Your task to perform on an android device: turn smart compose on in the gmail app Image 0: 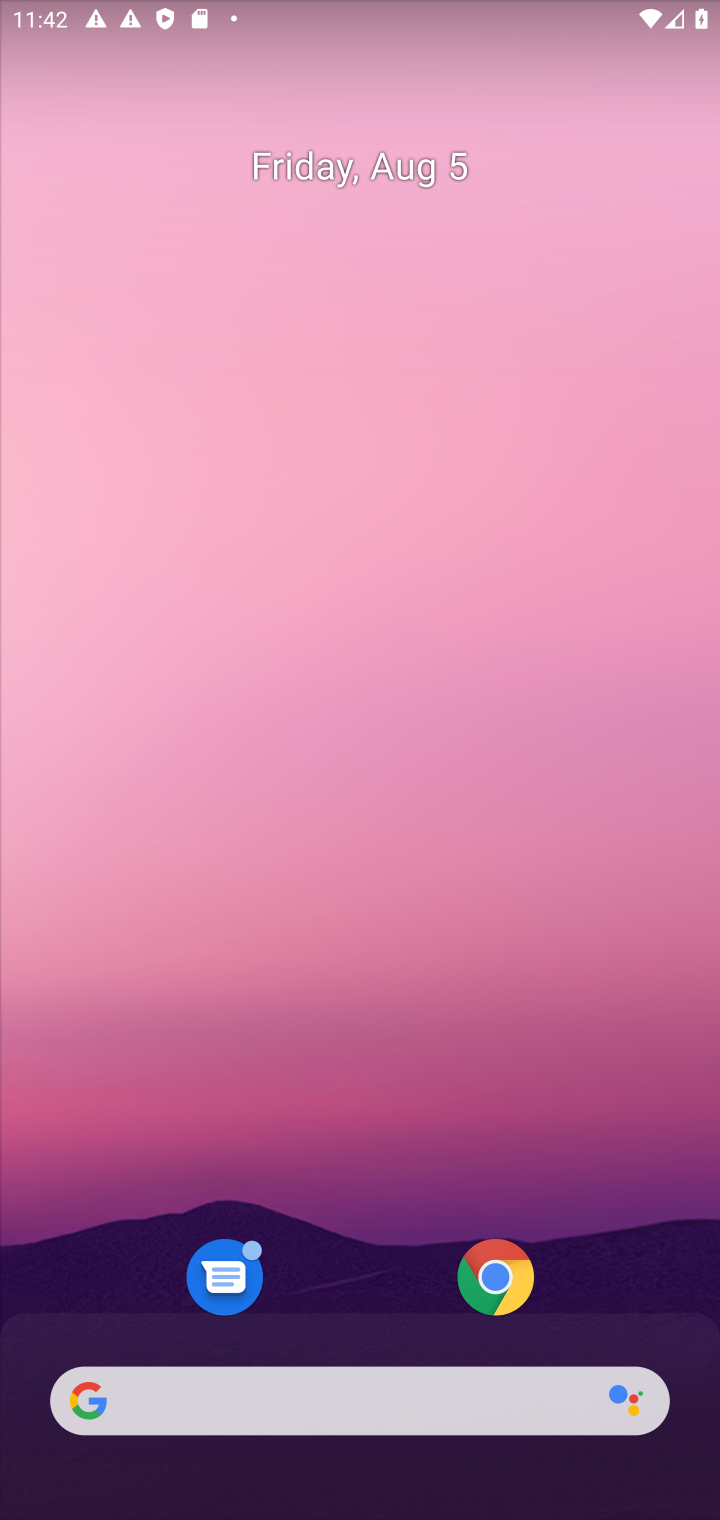
Step 0: drag from (368, 1317) to (460, 415)
Your task to perform on an android device: turn smart compose on in the gmail app Image 1: 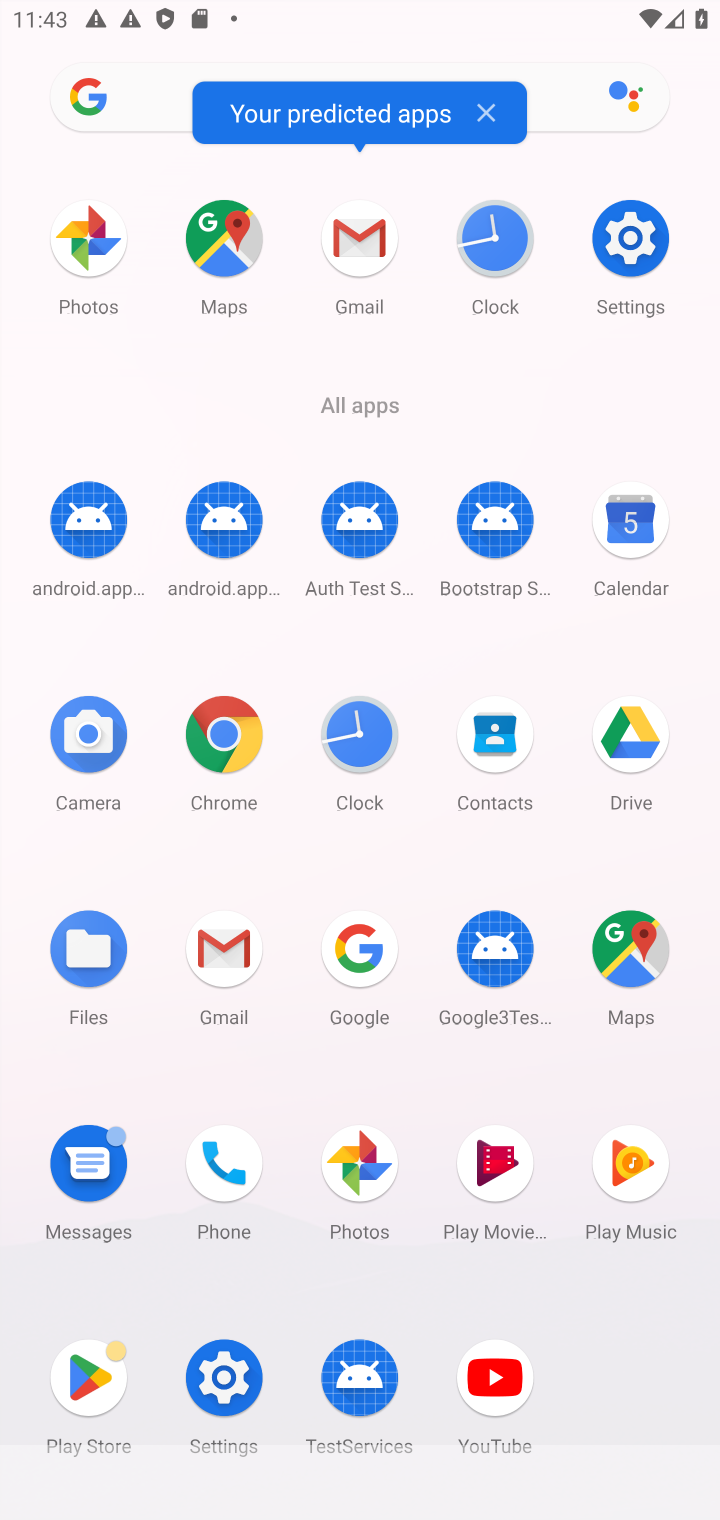
Step 1: click (353, 246)
Your task to perform on an android device: turn smart compose on in the gmail app Image 2: 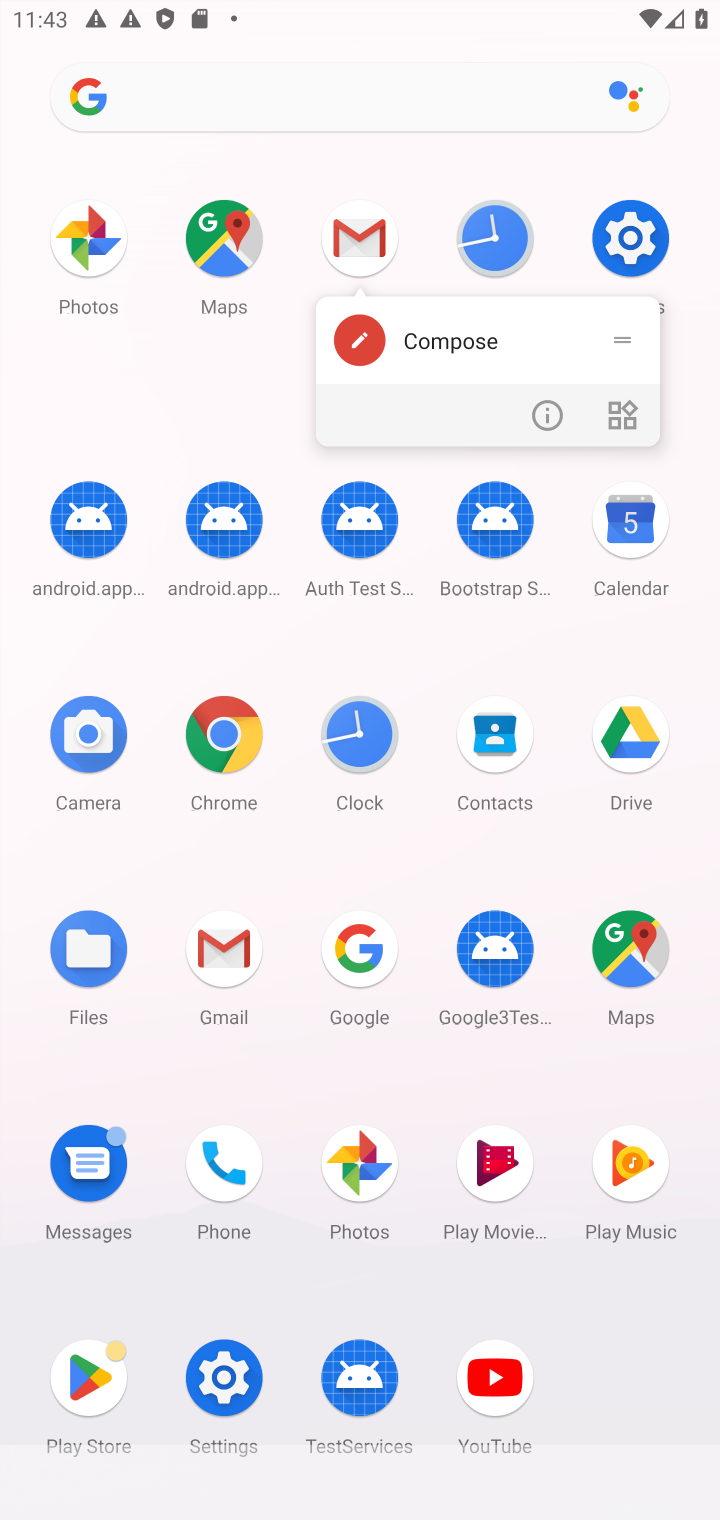
Step 2: click (366, 214)
Your task to perform on an android device: turn smart compose on in the gmail app Image 3: 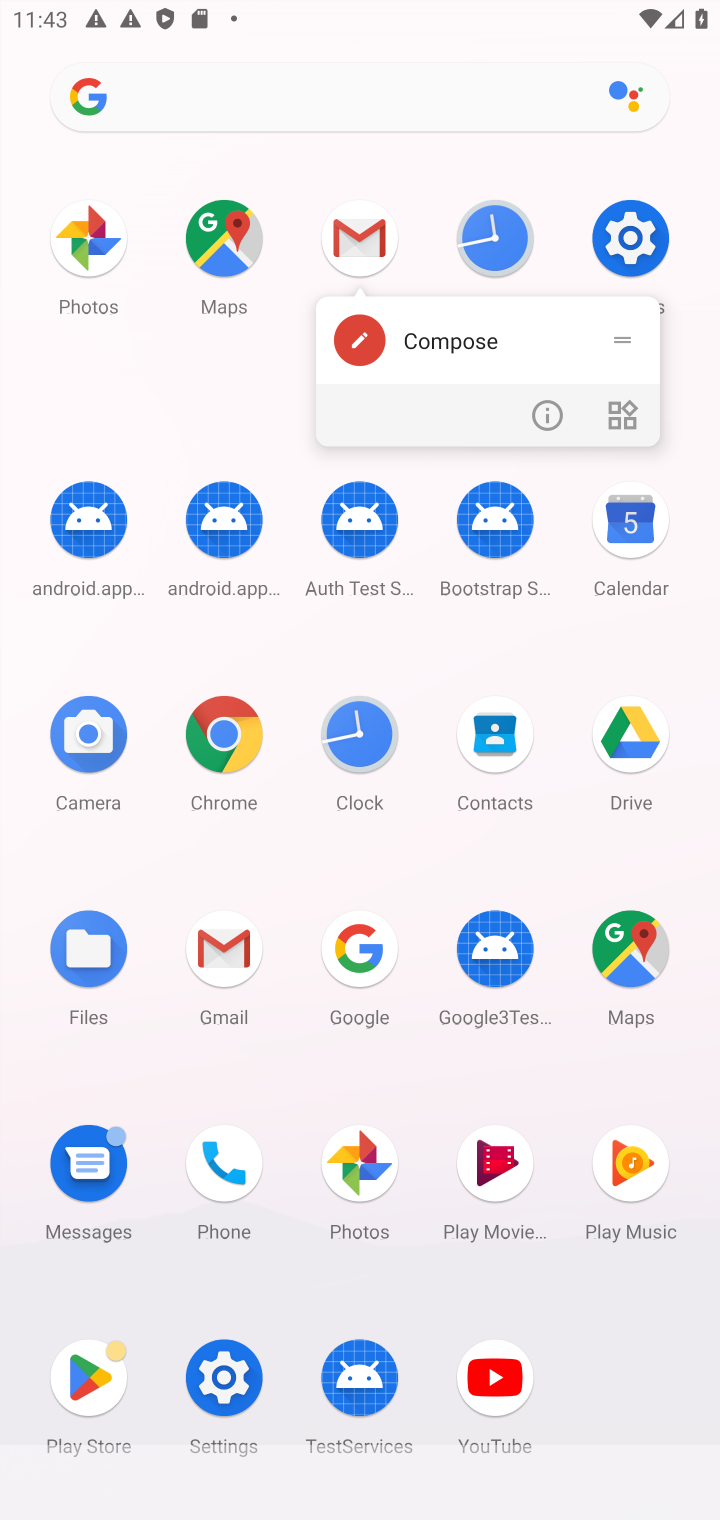
Step 3: click (368, 223)
Your task to perform on an android device: turn smart compose on in the gmail app Image 4: 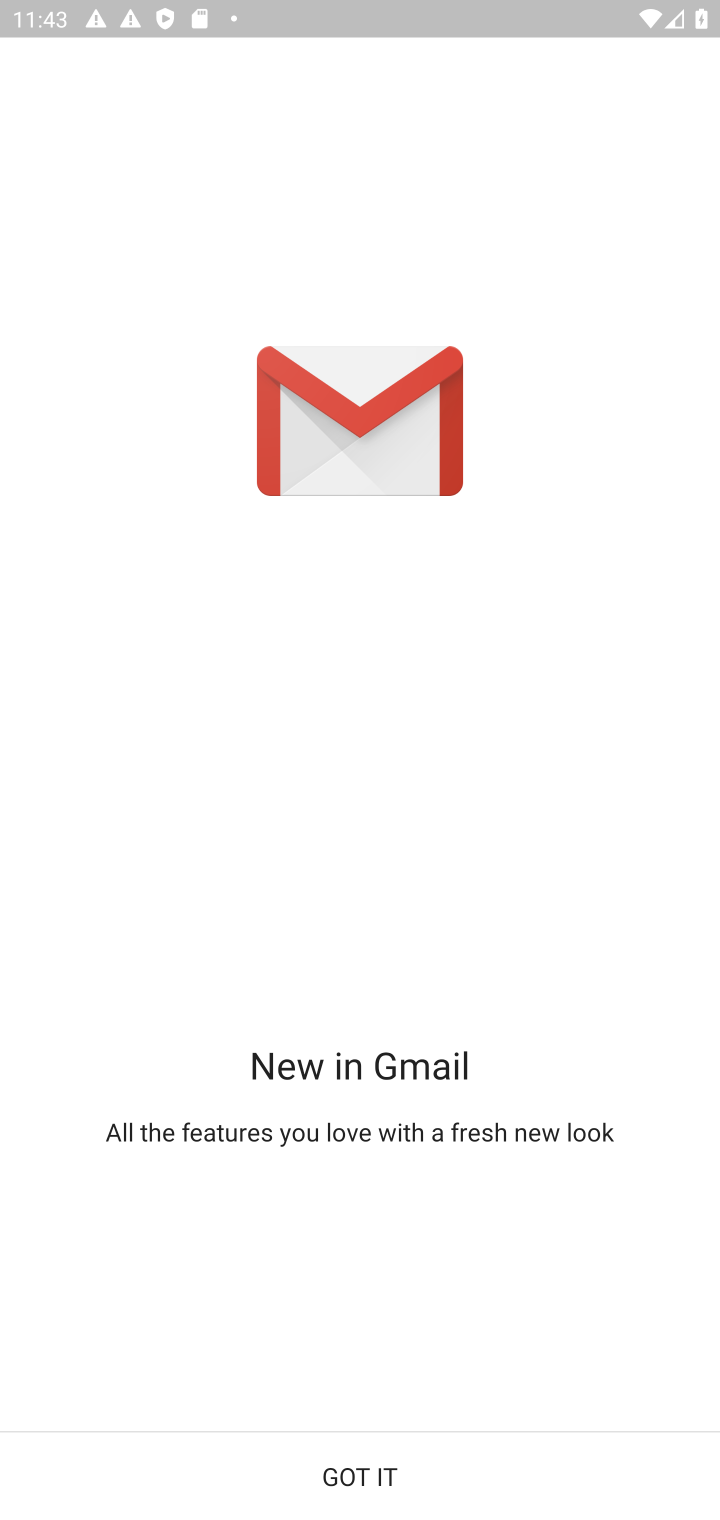
Step 4: click (361, 1472)
Your task to perform on an android device: turn smart compose on in the gmail app Image 5: 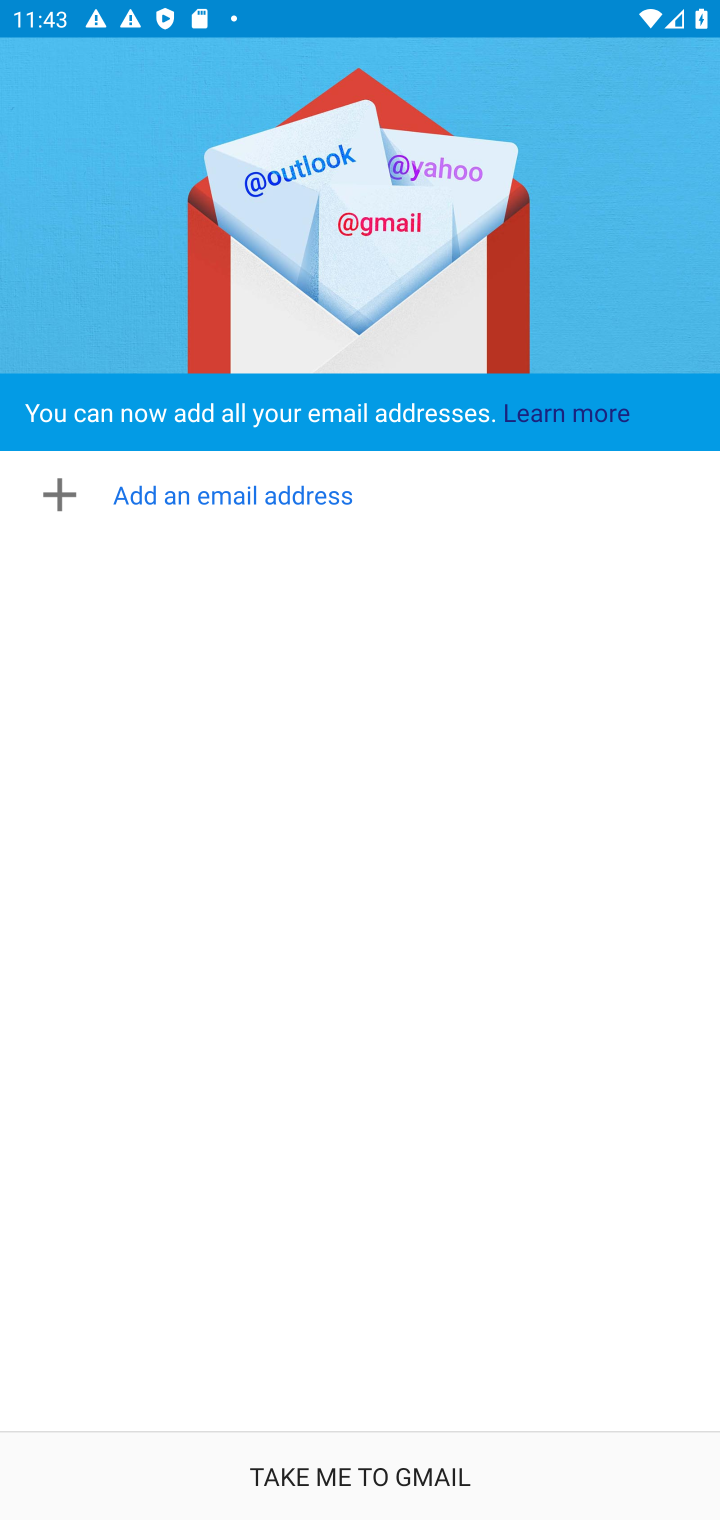
Step 5: click (363, 1472)
Your task to perform on an android device: turn smart compose on in the gmail app Image 6: 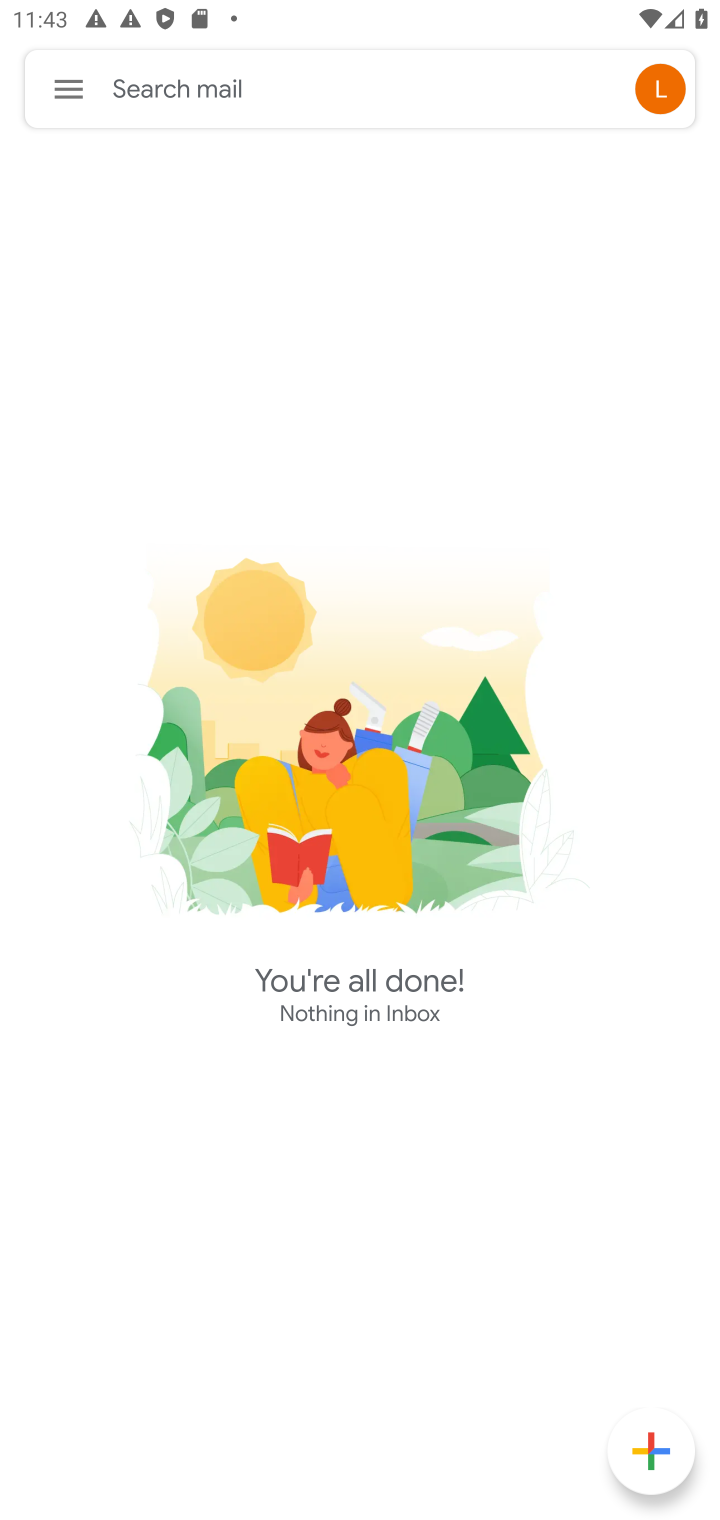
Step 6: click (75, 78)
Your task to perform on an android device: turn smart compose on in the gmail app Image 7: 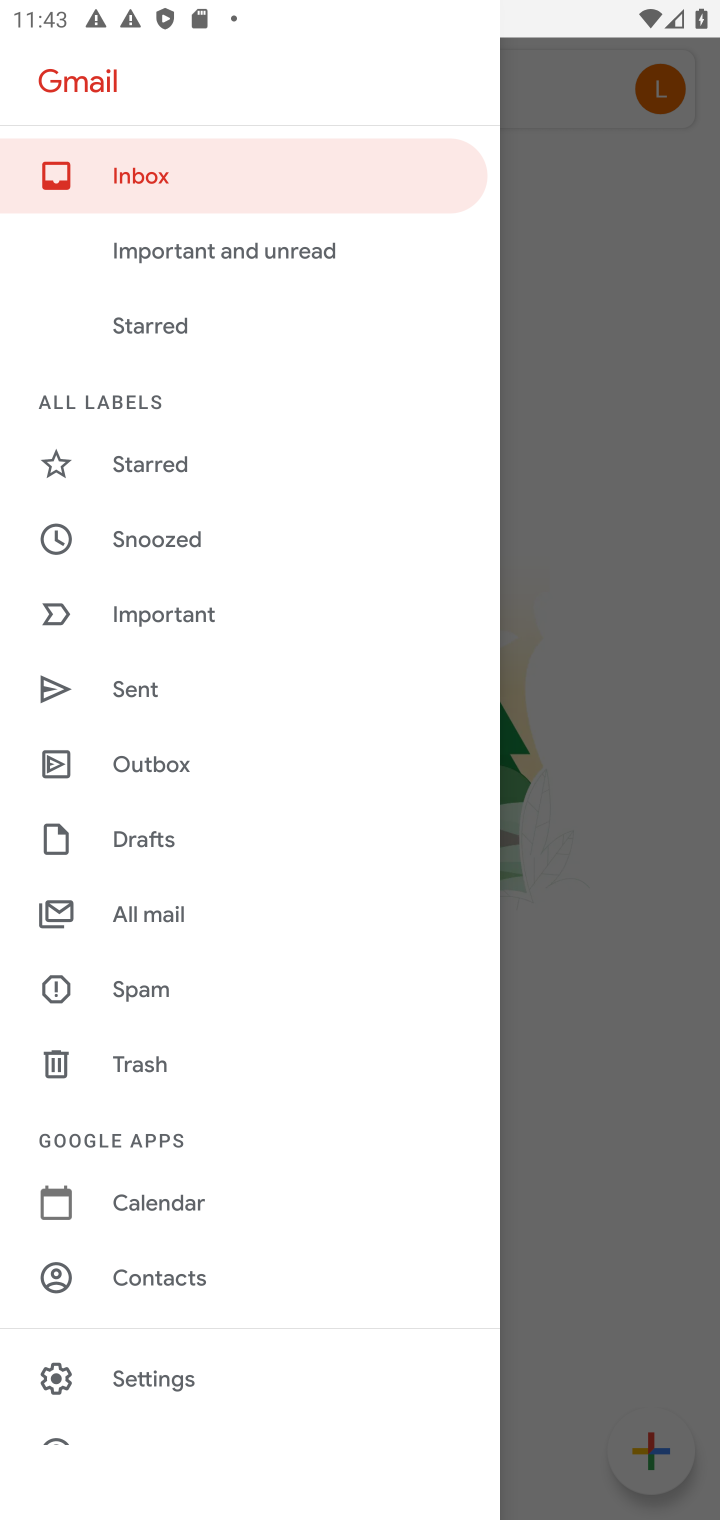
Step 7: drag from (271, 1160) to (399, 274)
Your task to perform on an android device: turn smart compose on in the gmail app Image 8: 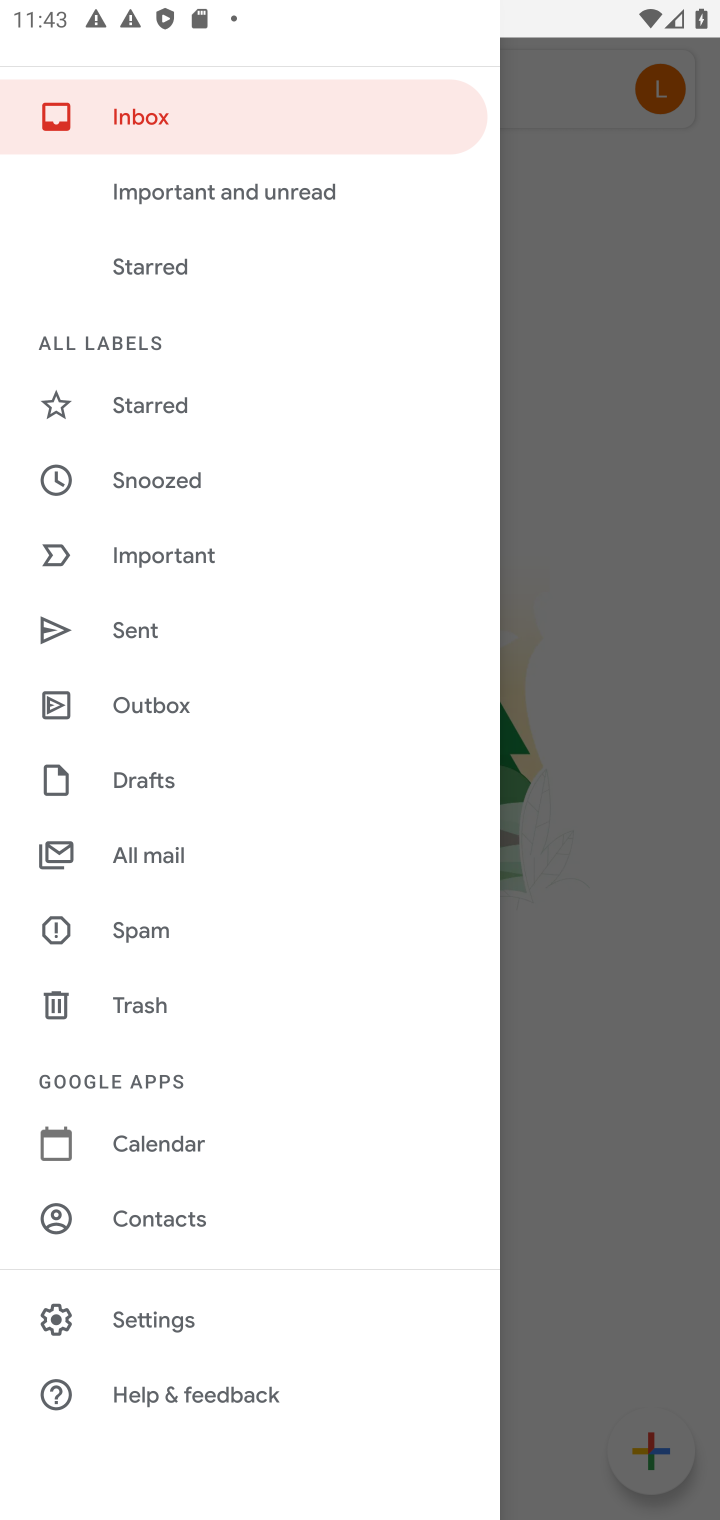
Step 8: click (194, 1322)
Your task to perform on an android device: turn smart compose on in the gmail app Image 9: 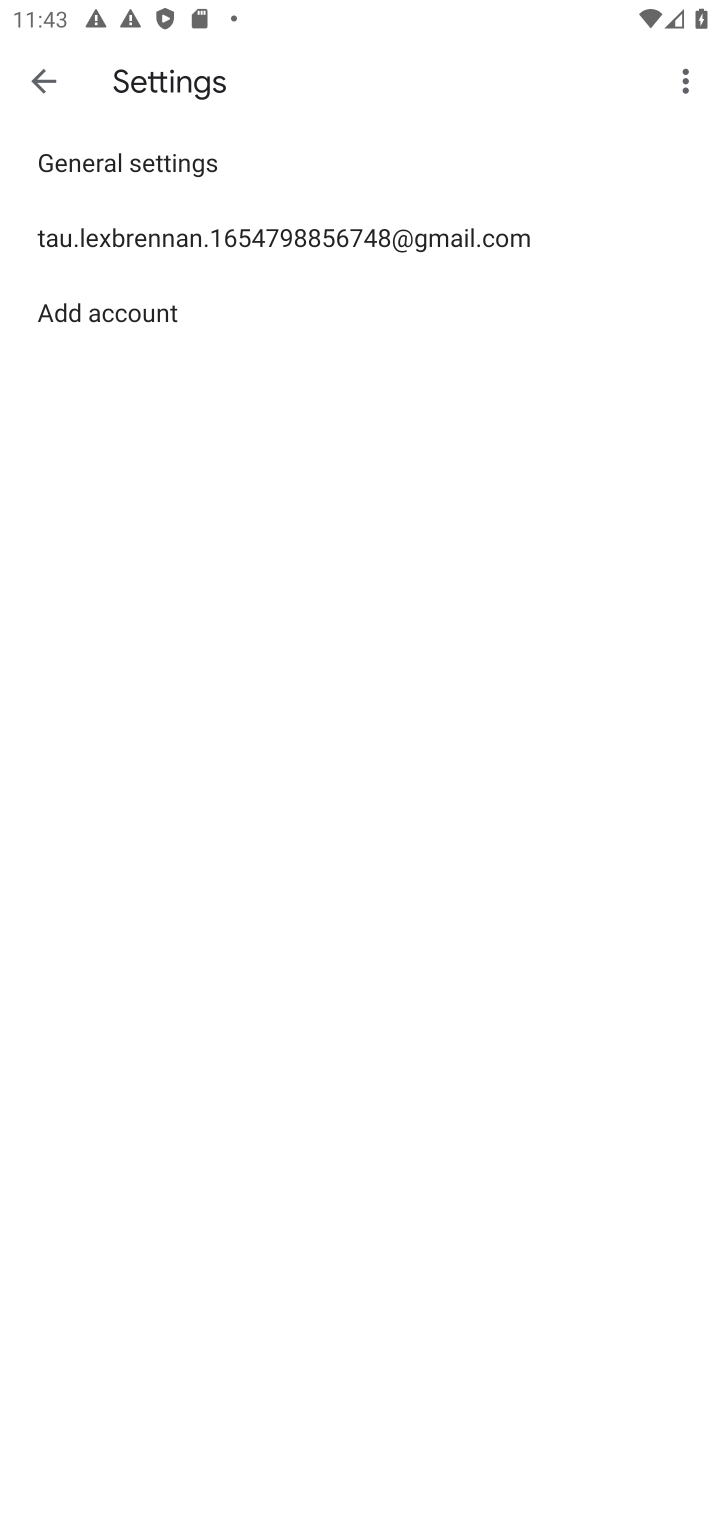
Step 9: click (343, 221)
Your task to perform on an android device: turn smart compose on in the gmail app Image 10: 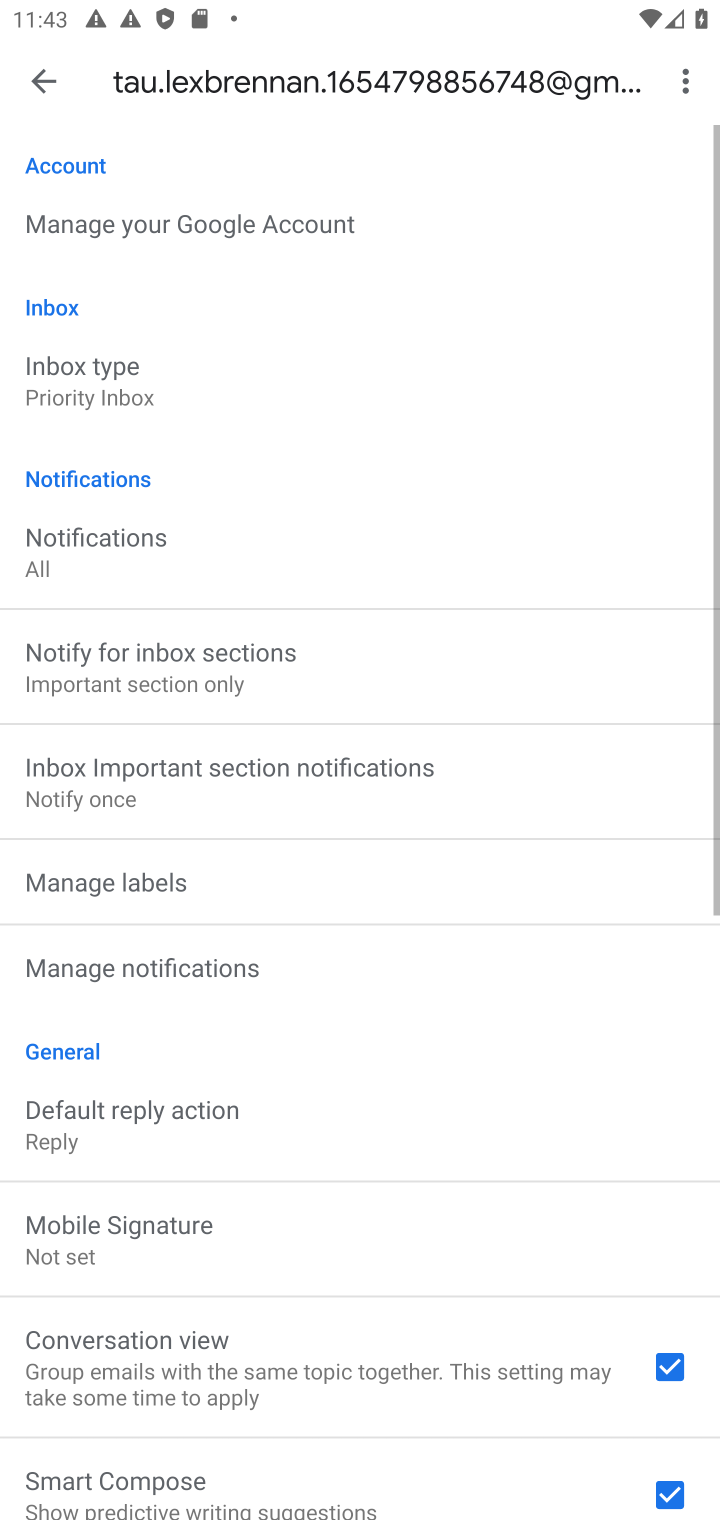
Step 10: task complete